Your task to perform on an android device: turn off sleep mode Image 0: 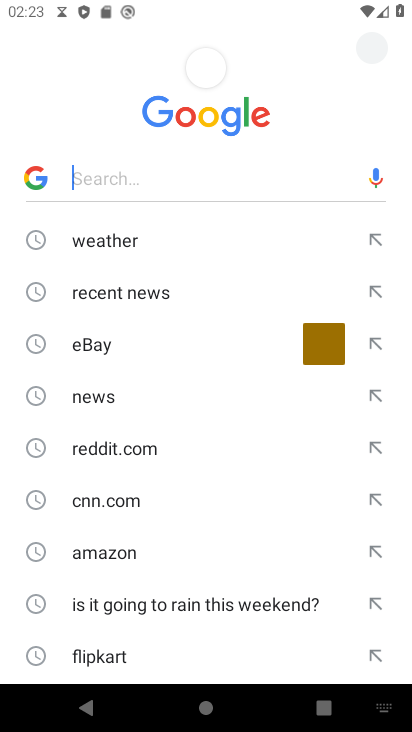
Step 0: press home button
Your task to perform on an android device: turn off sleep mode Image 1: 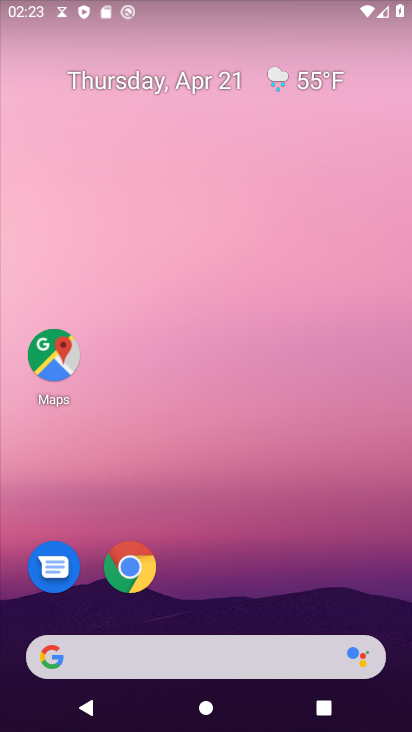
Step 1: drag from (188, 632) to (296, 126)
Your task to perform on an android device: turn off sleep mode Image 2: 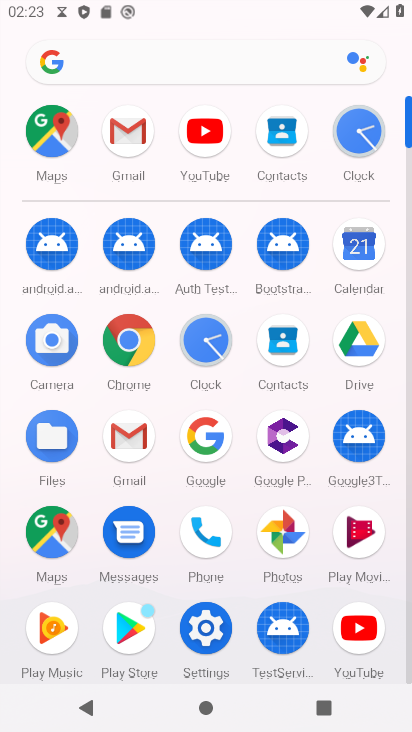
Step 2: click (208, 627)
Your task to perform on an android device: turn off sleep mode Image 3: 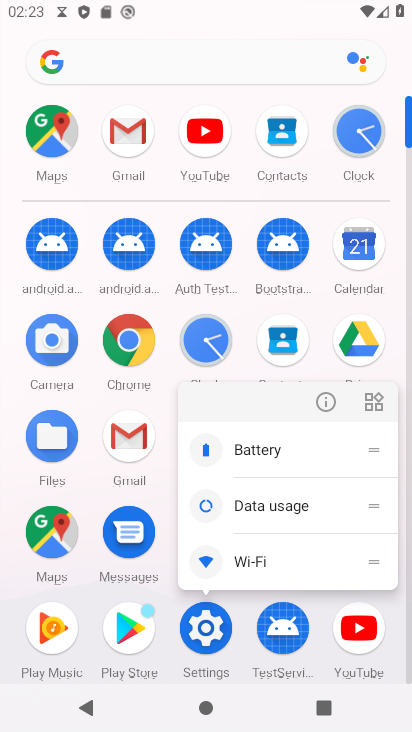
Step 3: click (212, 631)
Your task to perform on an android device: turn off sleep mode Image 4: 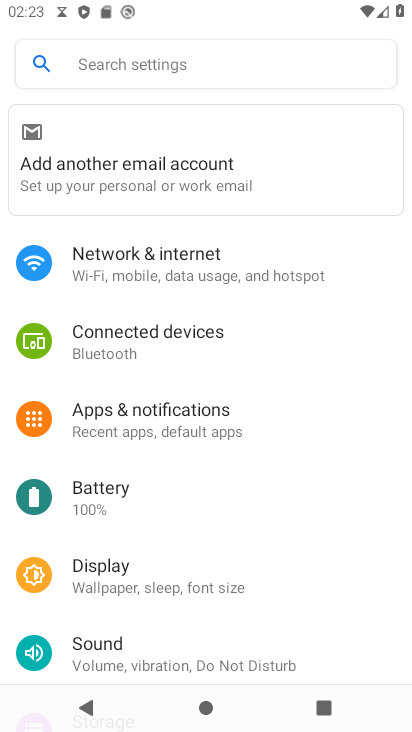
Step 4: click (161, 587)
Your task to perform on an android device: turn off sleep mode Image 5: 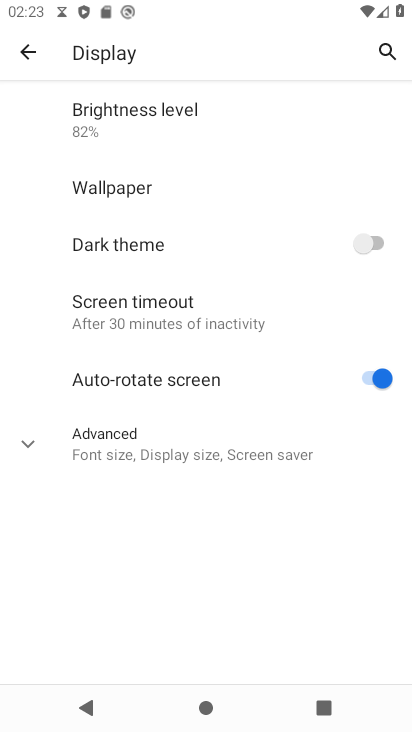
Step 5: task complete